Your task to perform on an android device: Go to settings Image 0: 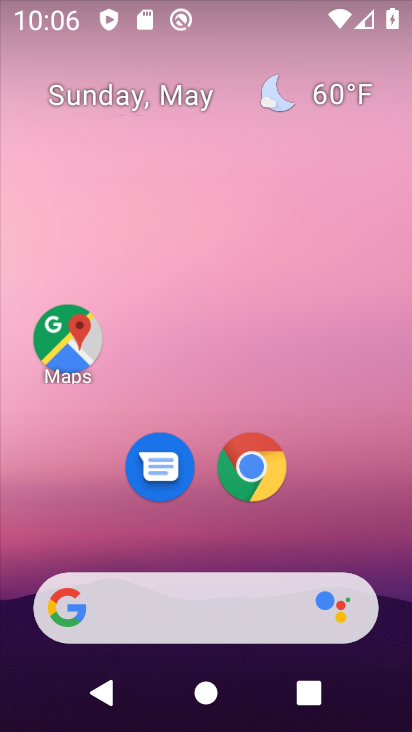
Step 0: drag from (363, 494) to (299, 33)
Your task to perform on an android device: Go to settings Image 1: 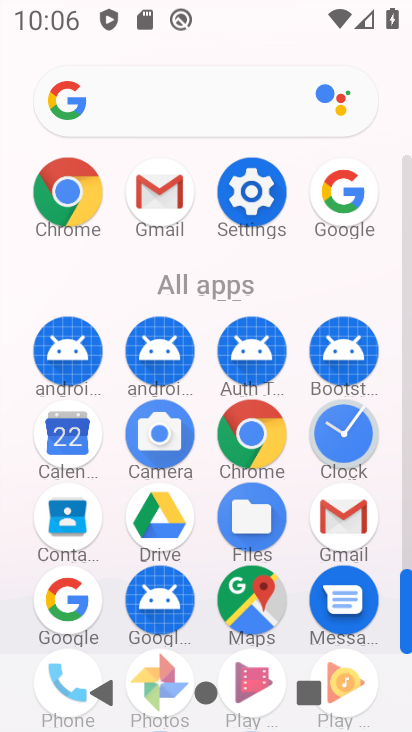
Step 1: click (255, 204)
Your task to perform on an android device: Go to settings Image 2: 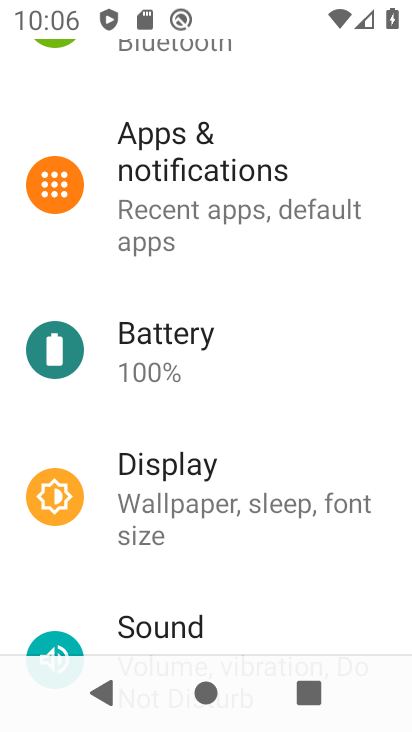
Step 2: task complete